Your task to perform on an android device: Go to settings Image 0: 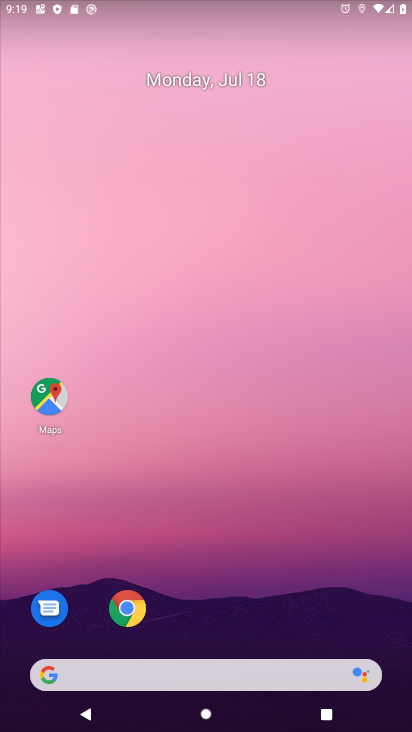
Step 0: drag from (15, 702) to (389, 7)
Your task to perform on an android device: Go to settings Image 1: 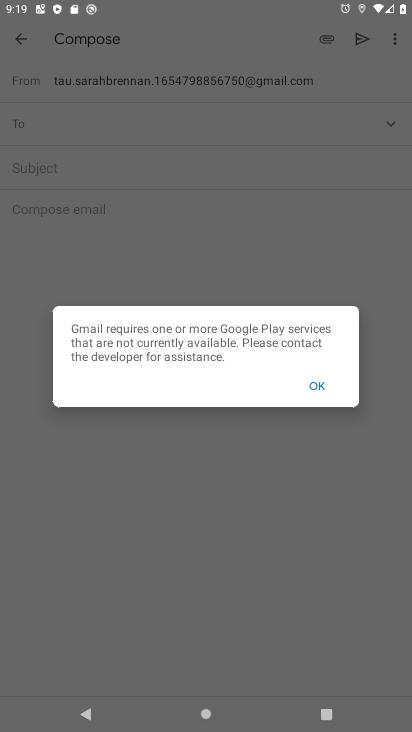
Step 1: click (326, 386)
Your task to perform on an android device: Go to settings Image 2: 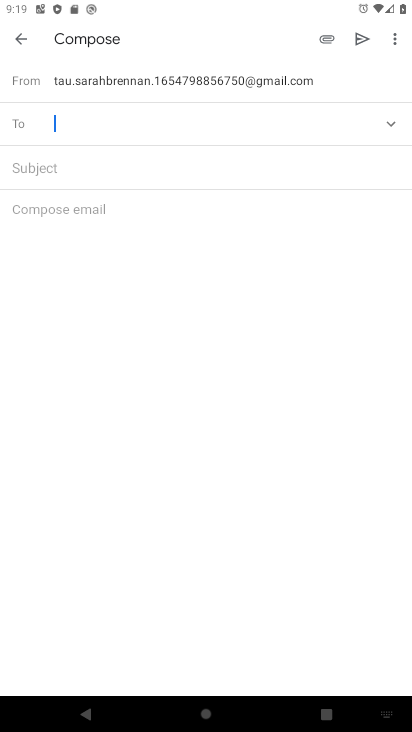
Step 2: press home button
Your task to perform on an android device: Go to settings Image 3: 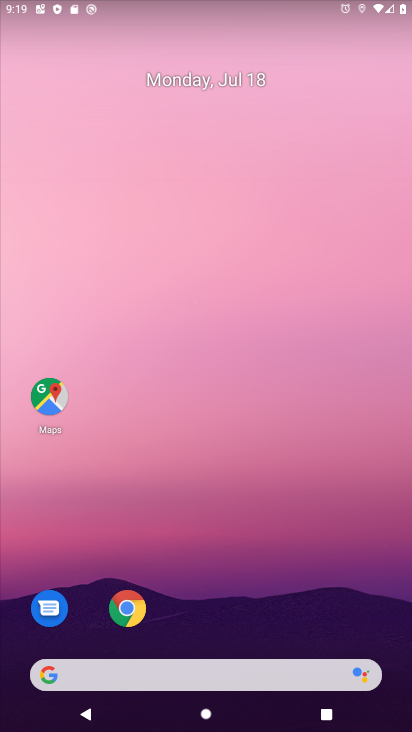
Step 3: drag from (58, 548) to (143, 138)
Your task to perform on an android device: Go to settings Image 4: 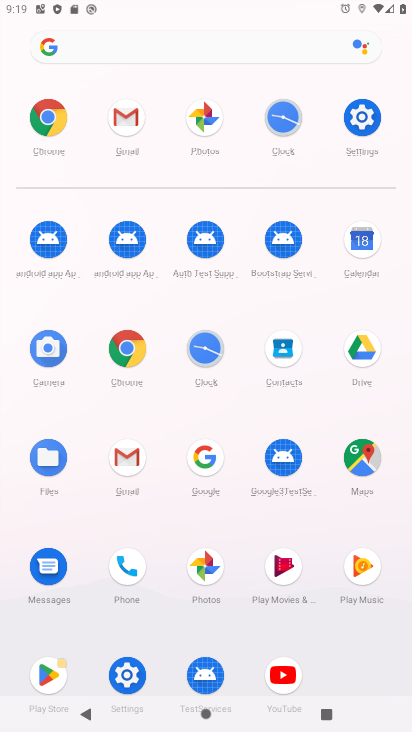
Step 4: click (125, 669)
Your task to perform on an android device: Go to settings Image 5: 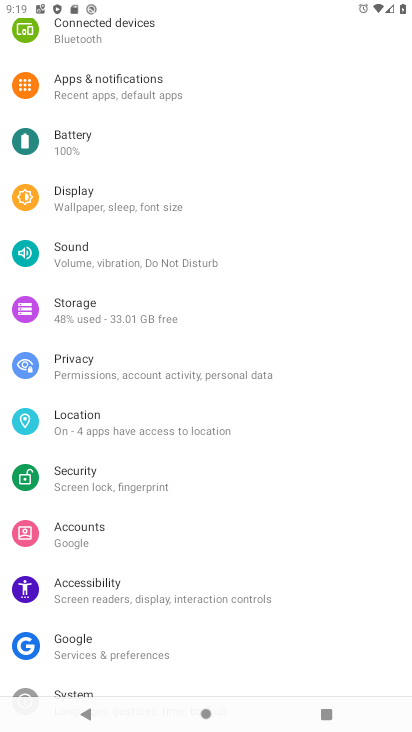
Step 5: task complete